Your task to perform on an android device: Add dell xps to the cart on walmart, then select checkout. Image 0: 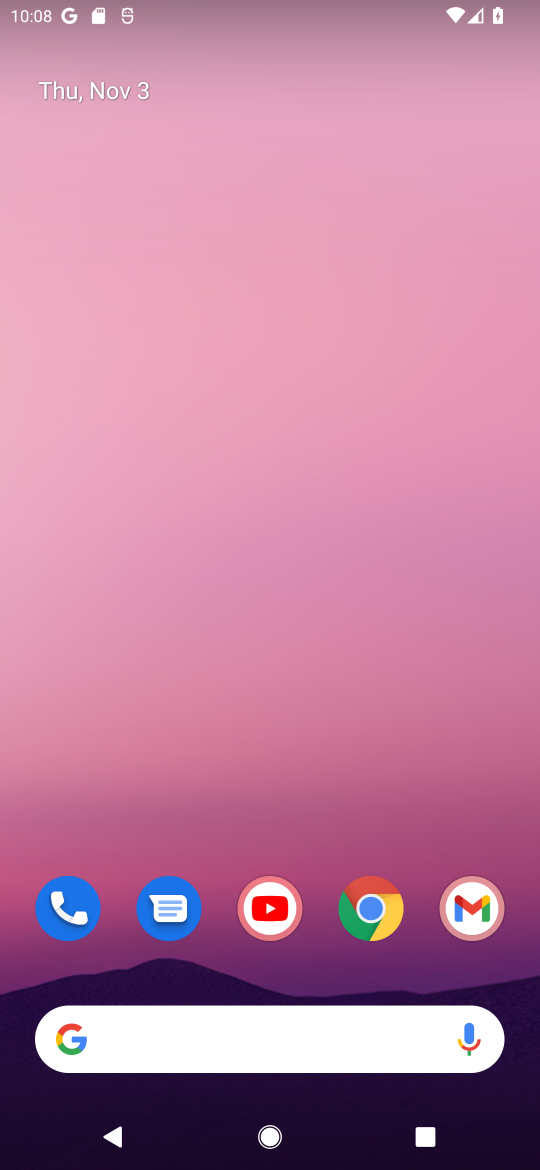
Step 0: click (368, 887)
Your task to perform on an android device: Add dell xps to the cart on walmart, then select checkout. Image 1: 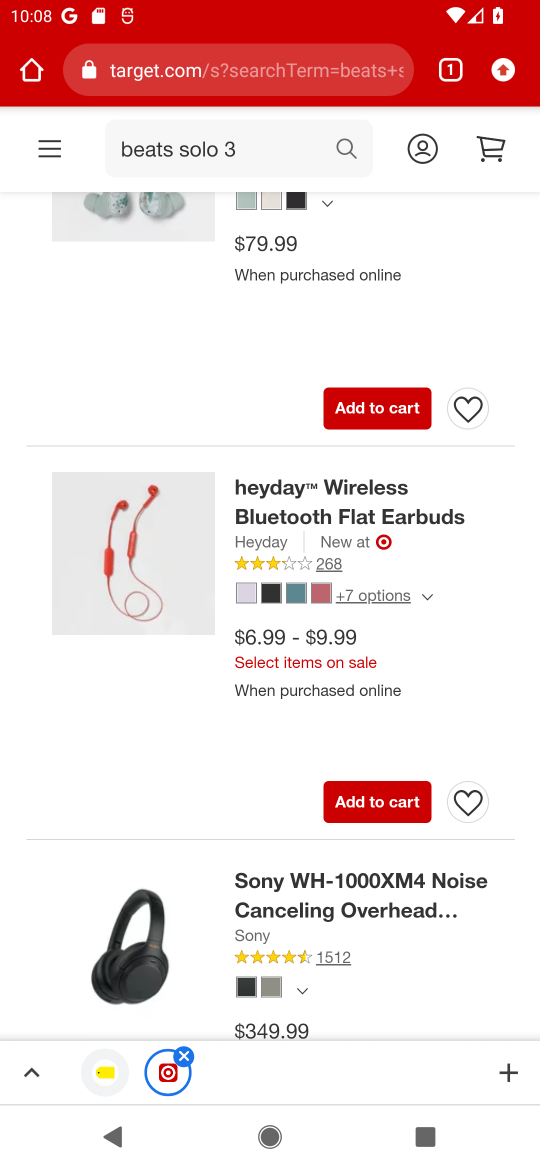
Step 1: click (282, 70)
Your task to perform on an android device: Add dell xps to the cart on walmart, then select checkout. Image 2: 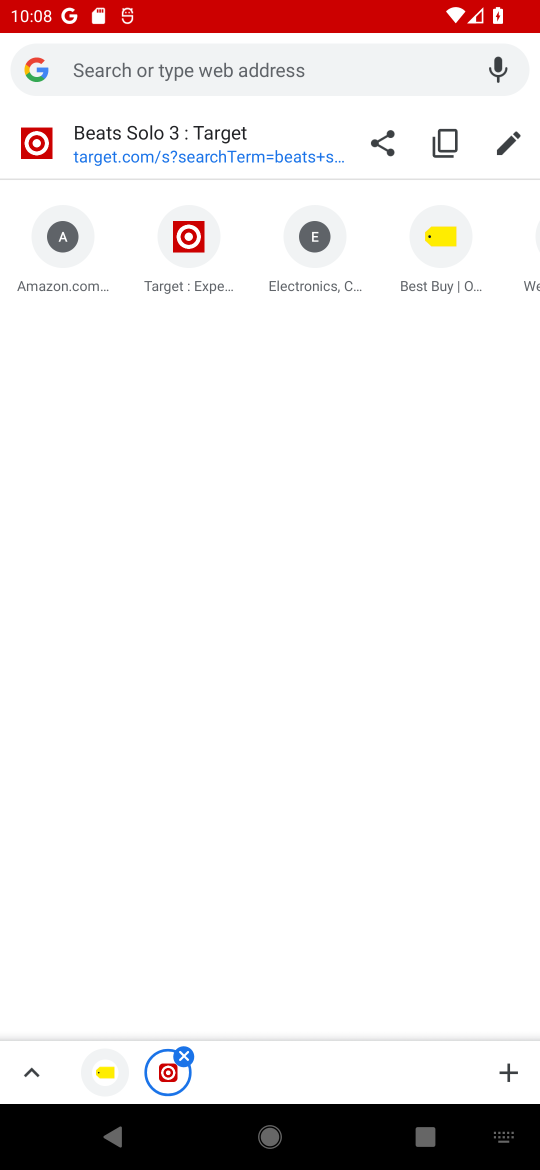
Step 2: click (266, 80)
Your task to perform on an android device: Add dell xps to the cart on walmart, then select checkout. Image 3: 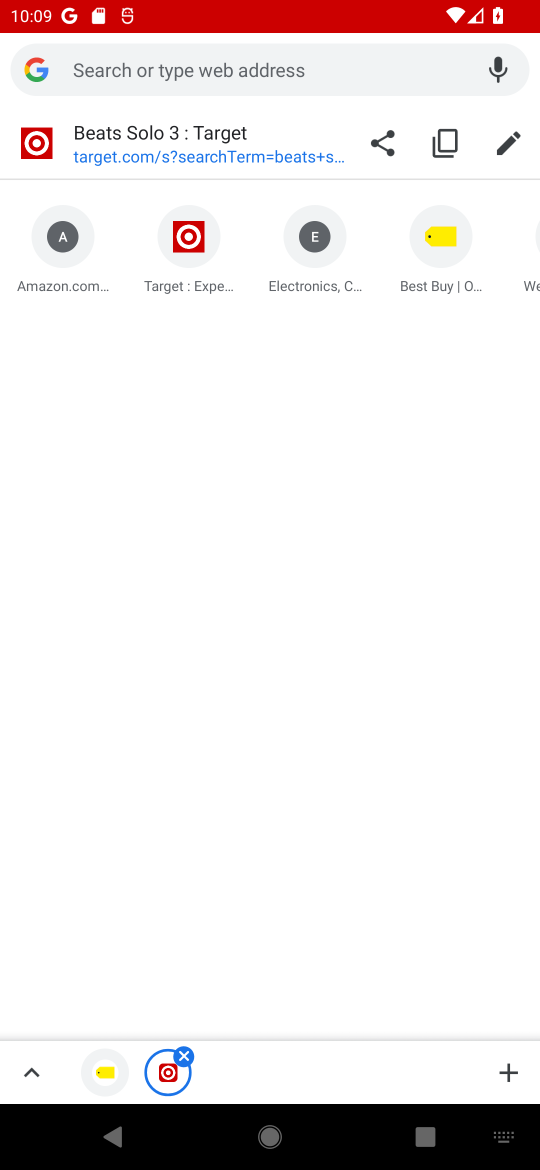
Step 3: type "walmart"
Your task to perform on an android device: Add dell xps to the cart on walmart, then select checkout. Image 4: 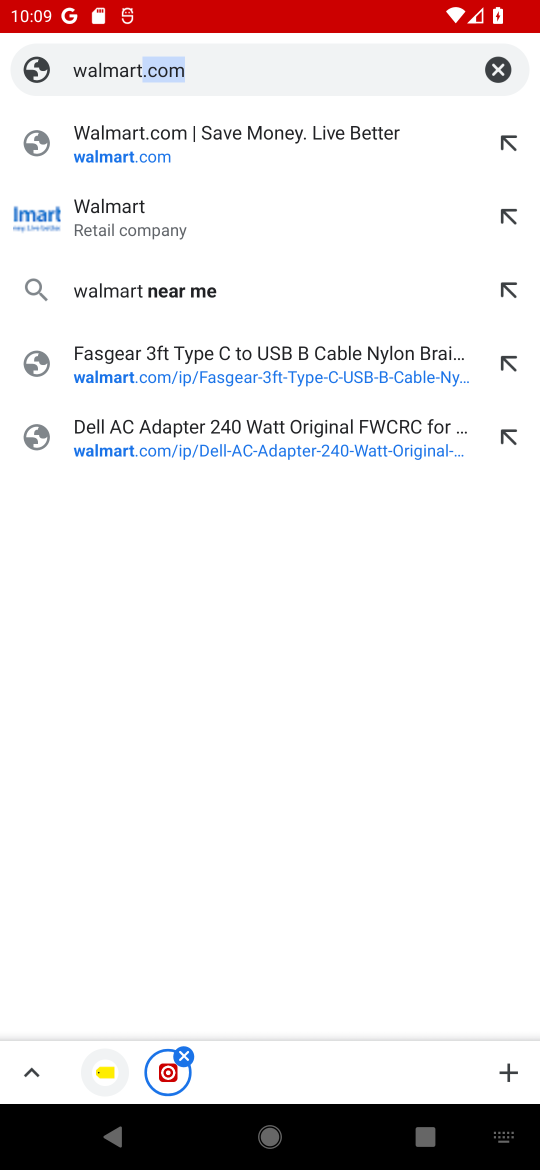
Step 4: click (314, 70)
Your task to perform on an android device: Add dell xps to the cart on walmart, then select checkout. Image 5: 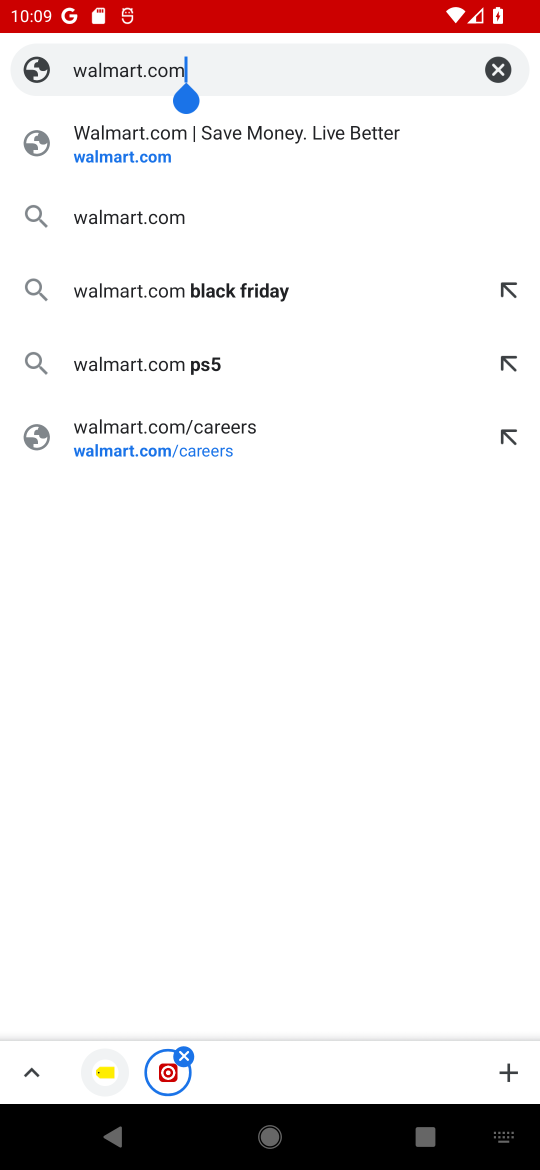
Step 5: click (182, 210)
Your task to perform on an android device: Add dell xps to the cart on walmart, then select checkout. Image 6: 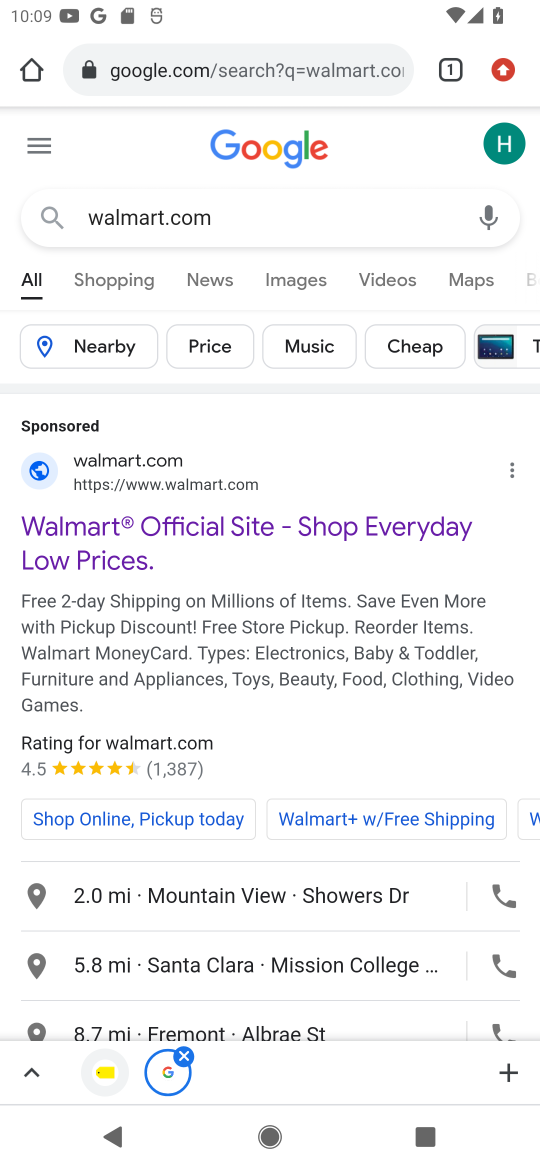
Step 6: drag from (291, 813) to (365, 386)
Your task to perform on an android device: Add dell xps to the cart on walmart, then select checkout. Image 7: 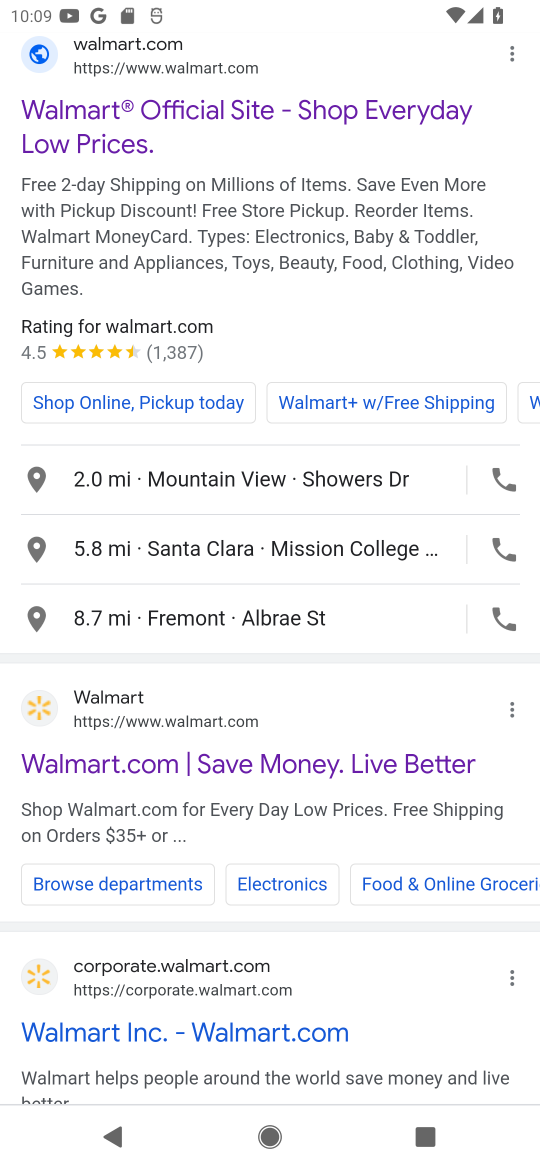
Step 7: drag from (385, 895) to (371, 594)
Your task to perform on an android device: Add dell xps to the cart on walmart, then select checkout. Image 8: 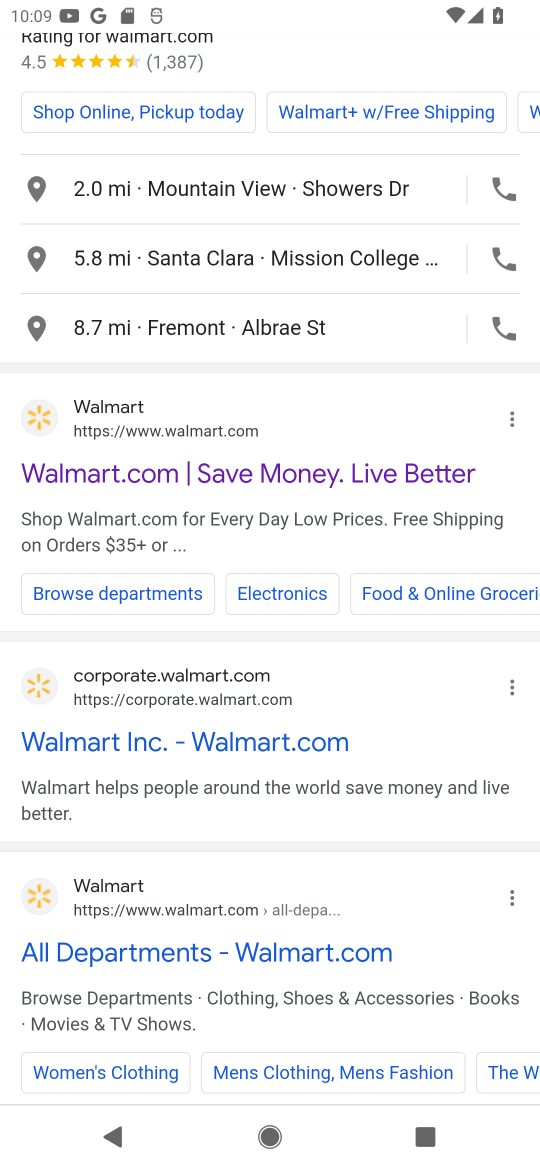
Step 8: drag from (340, 502) to (391, 827)
Your task to perform on an android device: Add dell xps to the cart on walmart, then select checkout. Image 9: 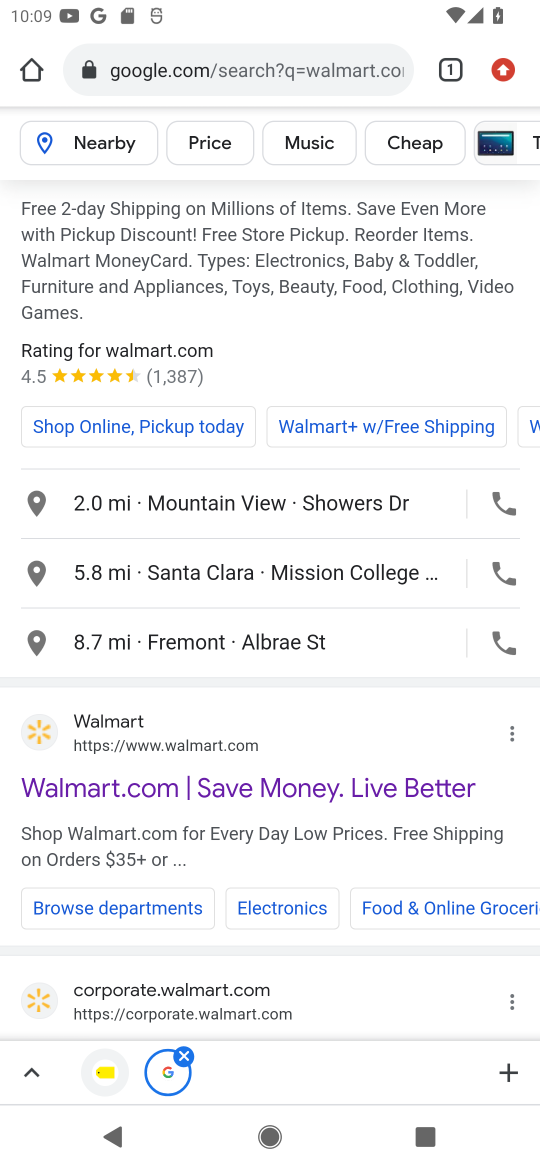
Step 9: drag from (294, 263) to (350, 592)
Your task to perform on an android device: Add dell xps to the cart on walmart, then select checkout. Image 10: 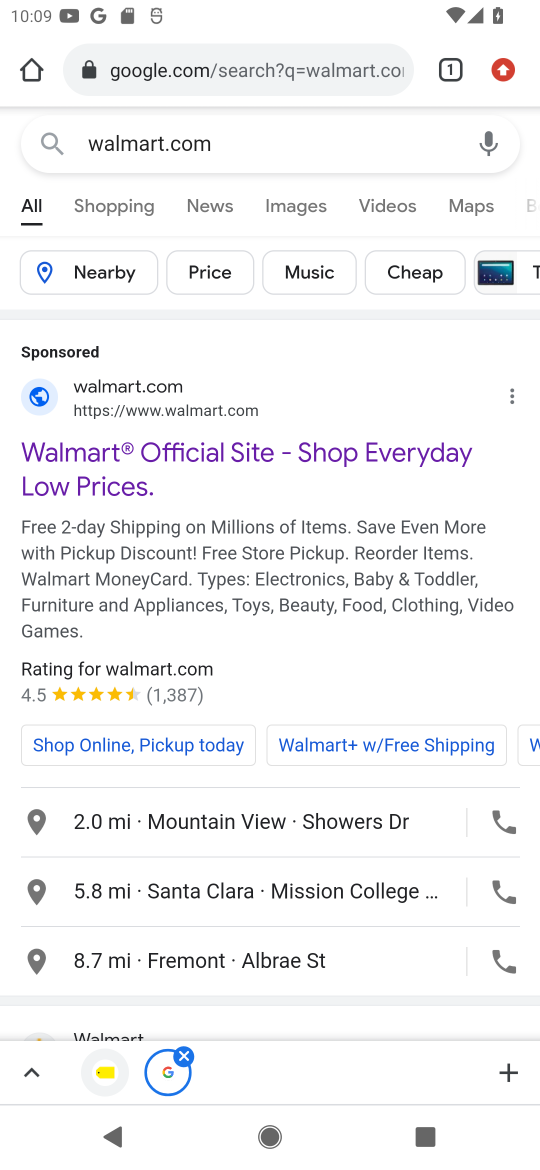
Step 10: click (145, 378)
Your task to perform on an android device: Add dell xps to the cart on walmart, then select checkout. Image 11: 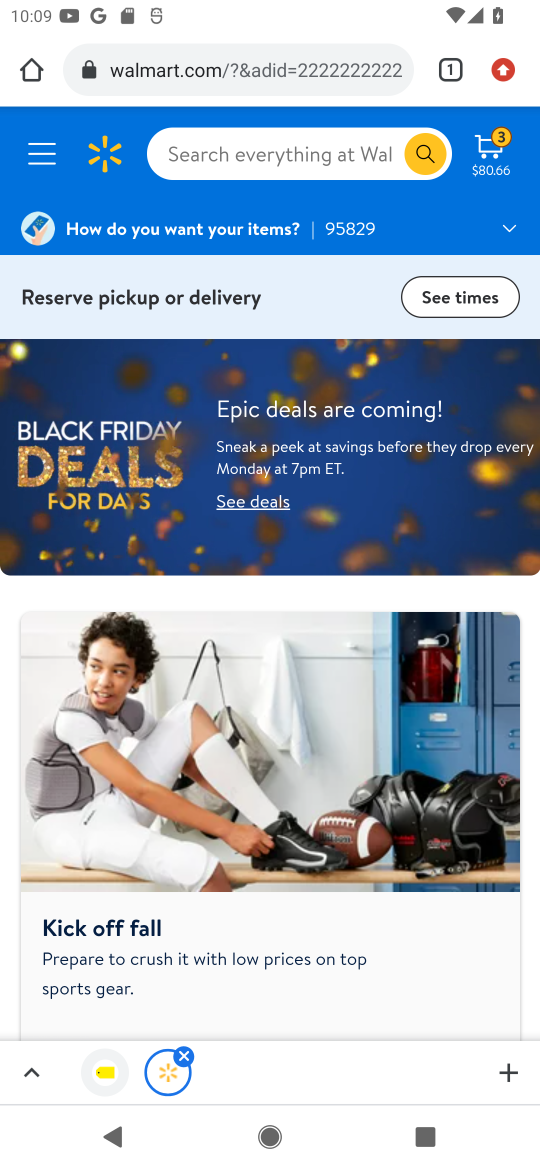
Step 11: click (287, 144)
Your task to perform on an android device: Add dell xps to the cart on walmart, then select checkout. Image 12: 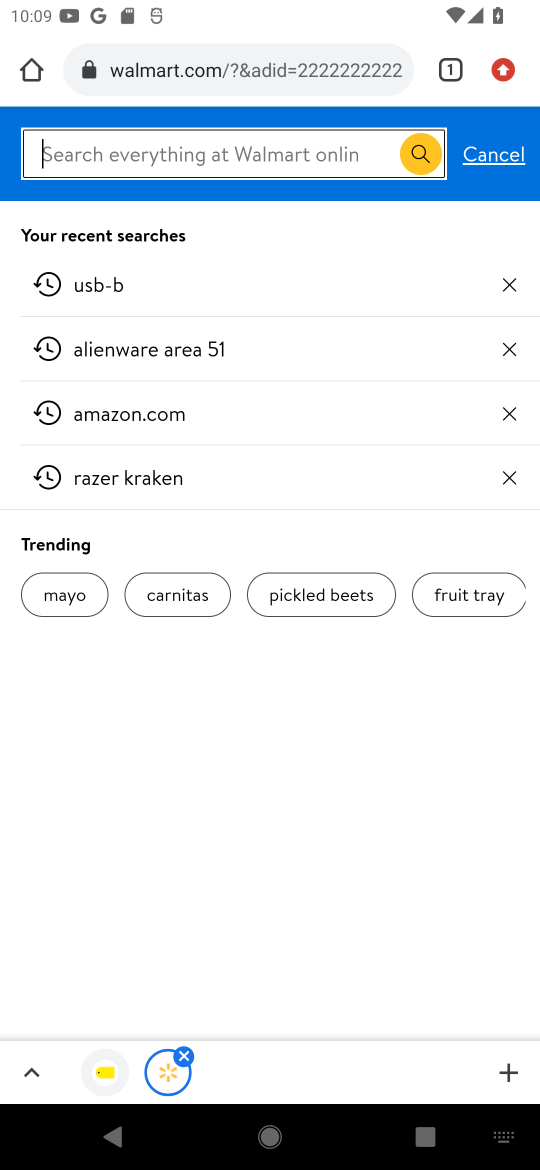
Step 12: type "dell xps"
Your task to perform on an android device: Add dell xps to the cart on walmart, then select checkout. Image 13: 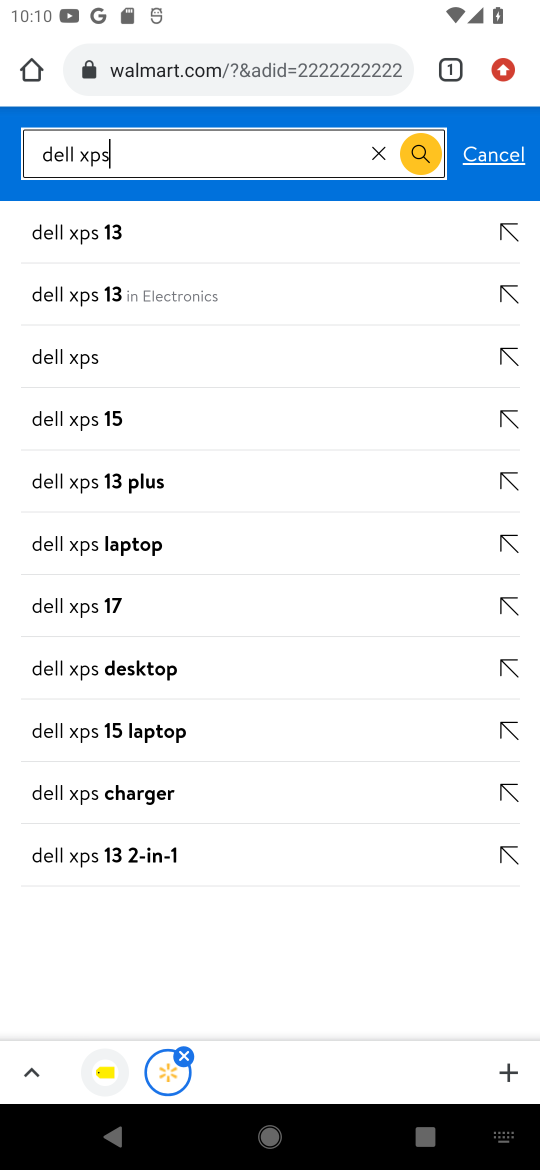
Step 13: click (67, 355)
Your task to perform on an android device: Add dell xps to the cart on walmart, then select checkout. Image 14: 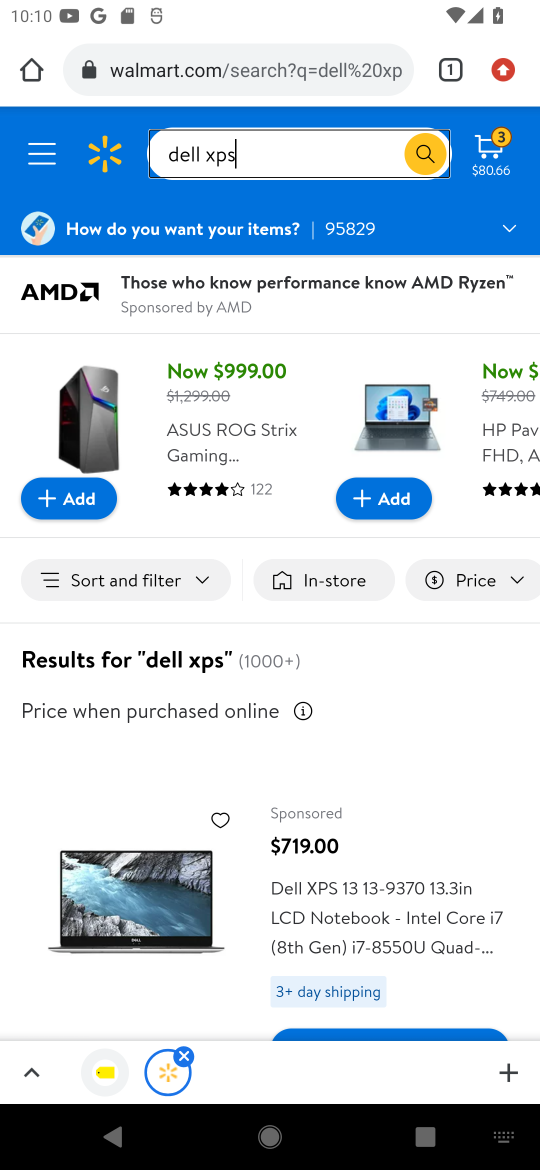
Step 14: click (113, 890)
Your task to perform on an android device: Add dell xps to the cart on walmart, then select checkout. Image 15: 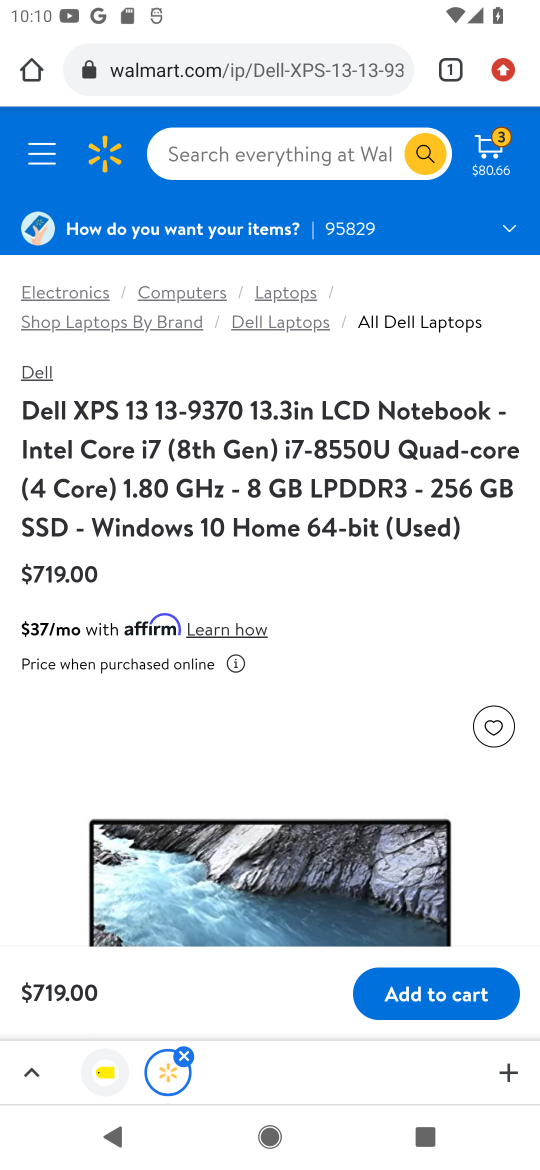
Step 15: click (429, 999)
Your task to perform on an android device: Add dell xps to the cart on walmart, then select checkout. Image 16: 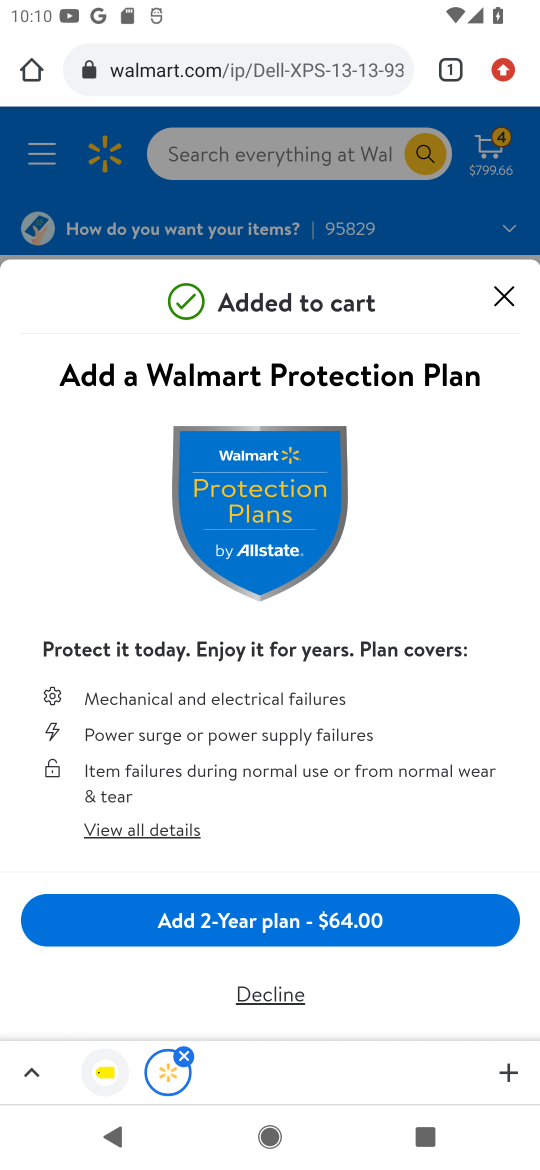
Step 16: click (493, 298)
Your task to perform on an android device: Add dell xps to the cart on walmart, then select checkout. Image 17: 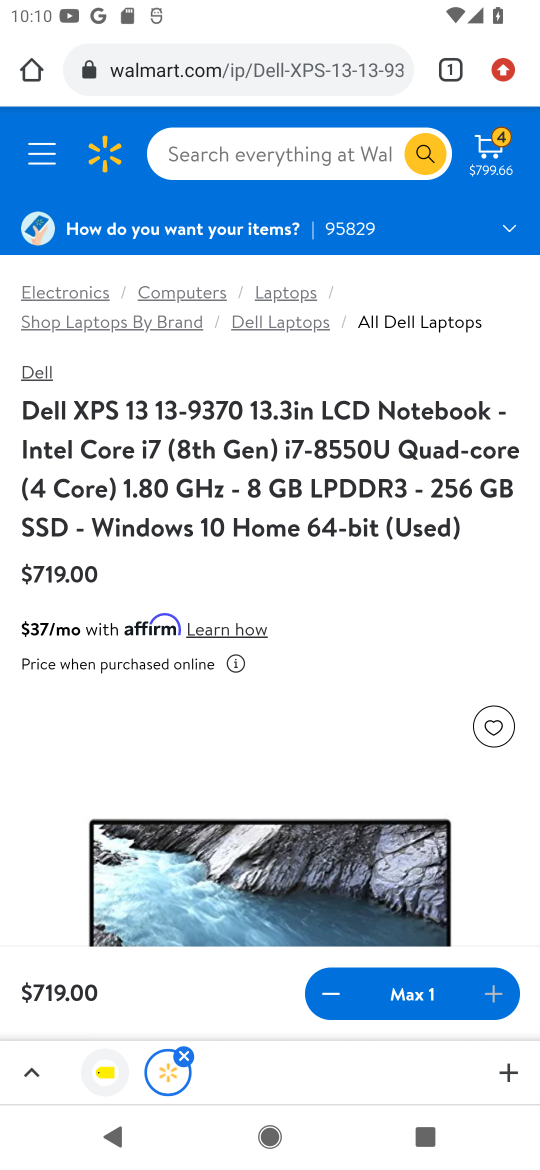
Step 17: click (496, 160)
Your task to perform on an android device: Add dell xps to the cart on walmart, then select checkout. Image 18: 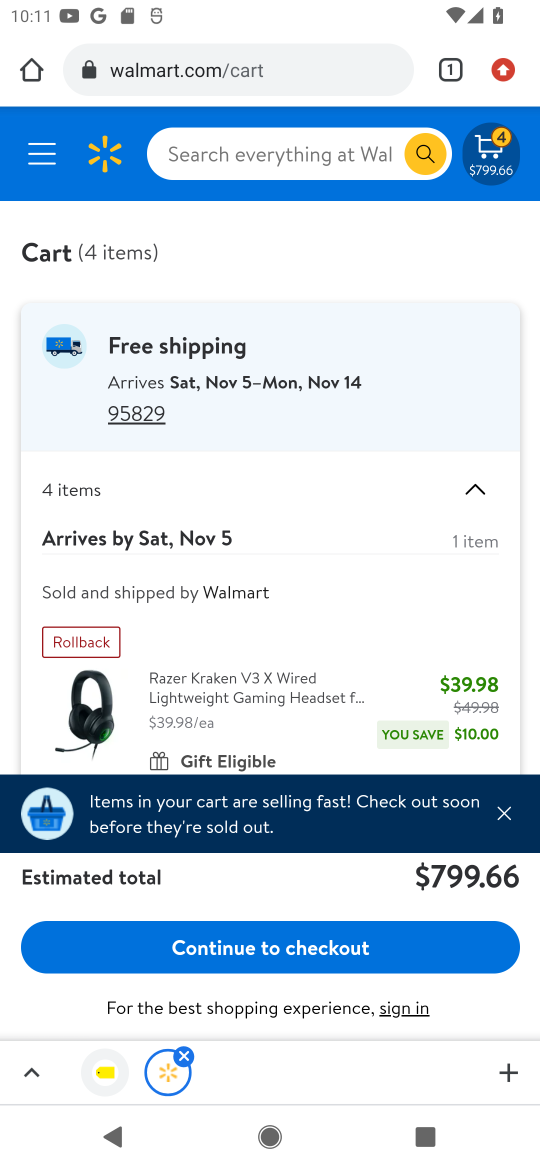
Step 18: click (257, 945)
Your task to perform on an android device: Add dell xps to the cart on walmart, then select checkout. Image 19: 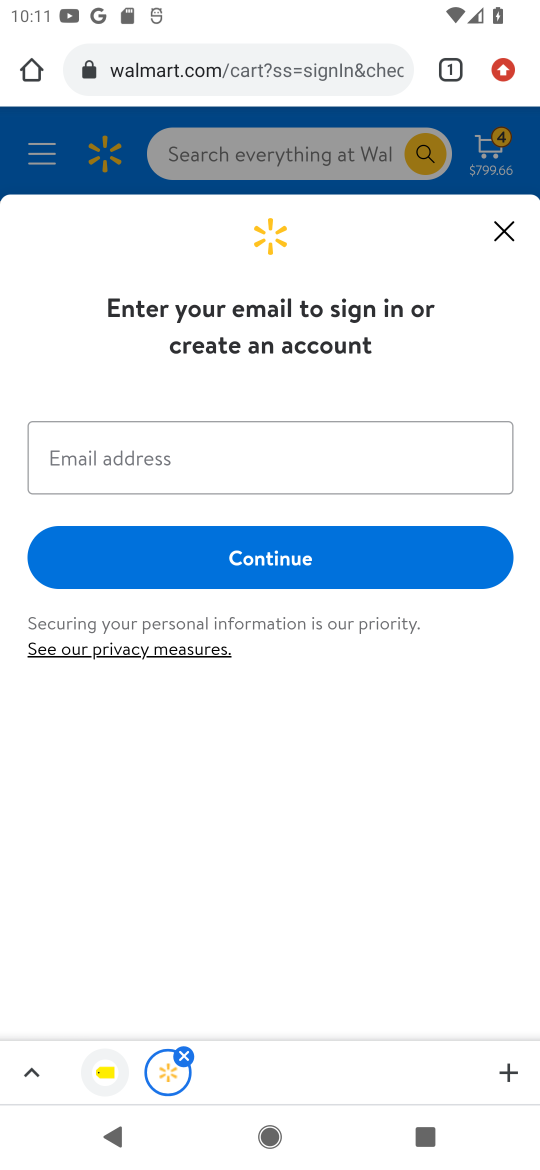
Step 19: task complete